Your task to perform on an android device: turn on bluetooth scan Image 0: 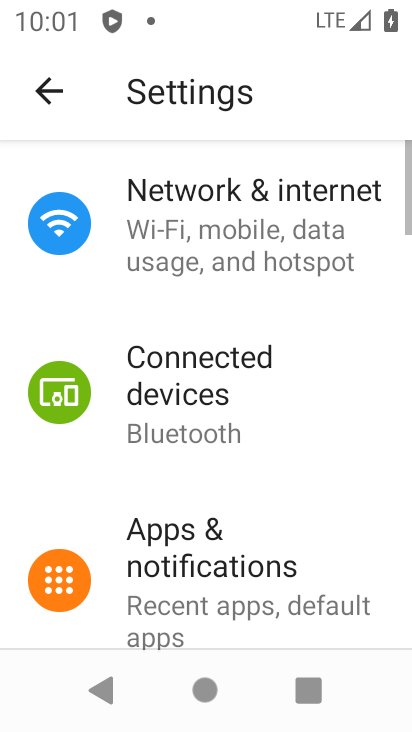
Step 0: drag from (280, 613) to (258, 133)
Your task to perform on an android device: turn on bluetooth scan Image 1: 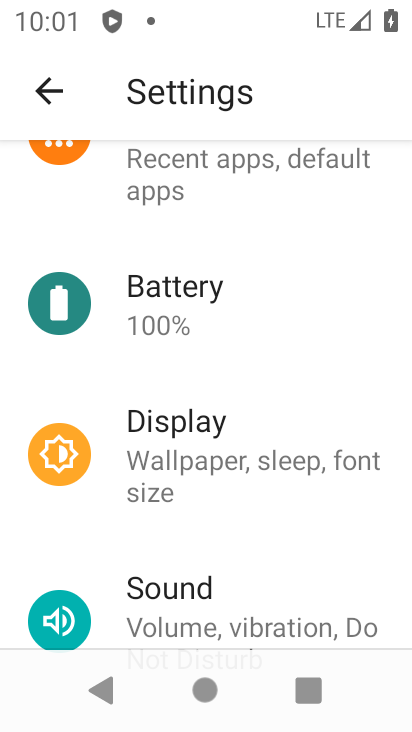
Step 1: drag from (243, 556) to (260, 186)
Your task to perform on an android device: turn on bluetooth scan Image 2: 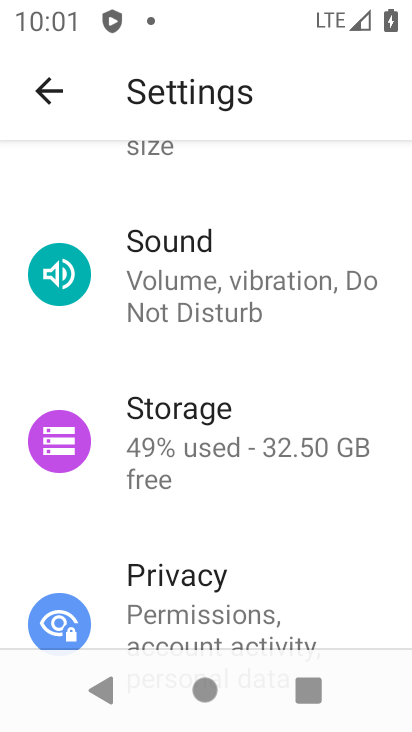
Step 2: drag from (222, 638) to (241, 187)
Your task to perform on an android device: turn on bluetooth scan Image 3: 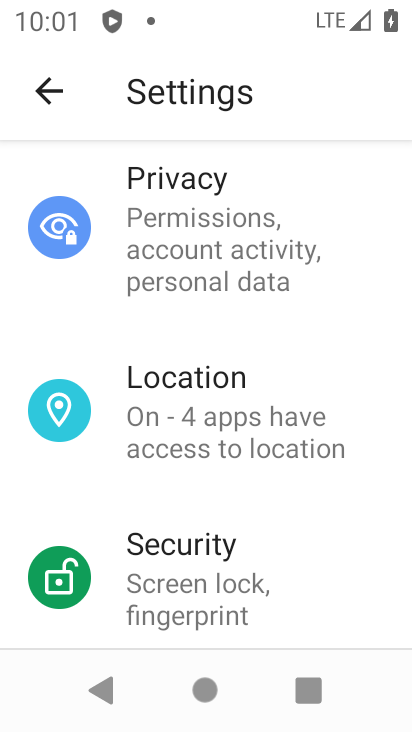
Step 3: click (245, 385)
Your task to perform on an android device: turn on bluetooth scan Image 4: 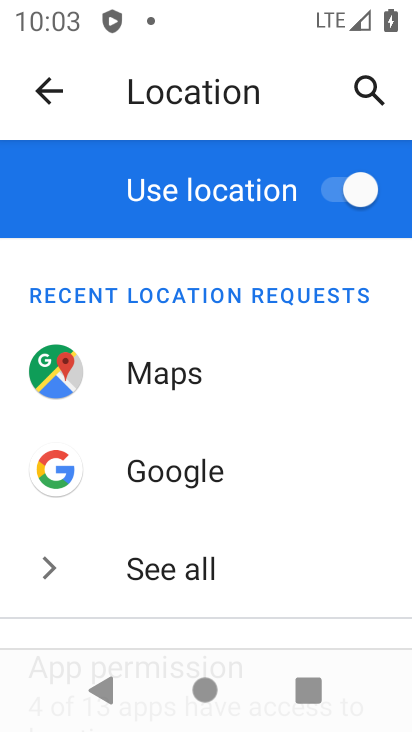
Step 4: drag from (180, 535) to (159, 75)
Your task to perform on an android device: turn on bluetooth scan Image 5: 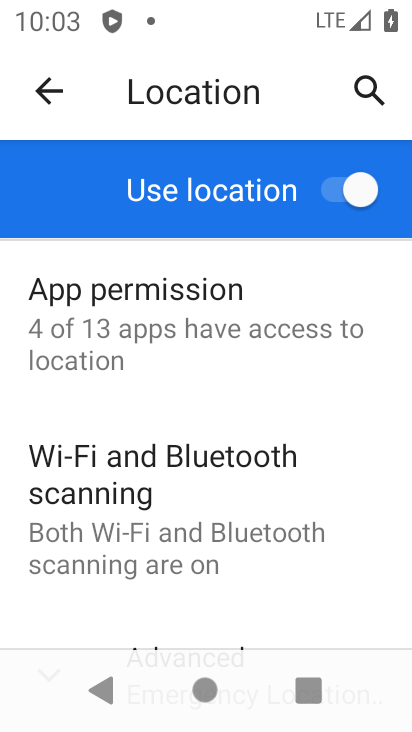
Step 5: click (182, 459)
Your task to perform on an android device: turn on bluetooth scan Image 6: 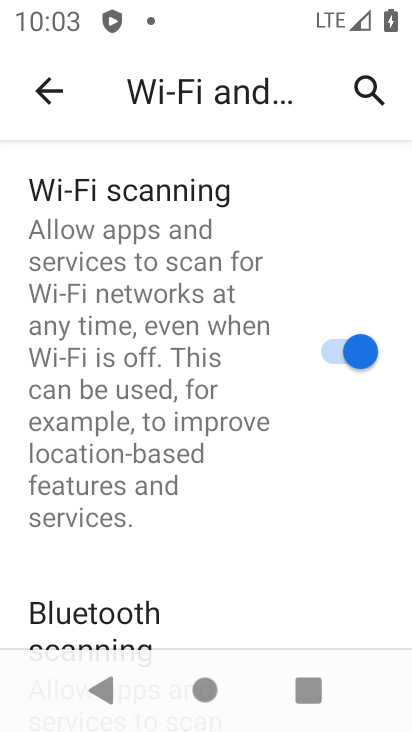
Step 6: task complete